Your task to perform on an android device: toggle sleep mode Image 0: 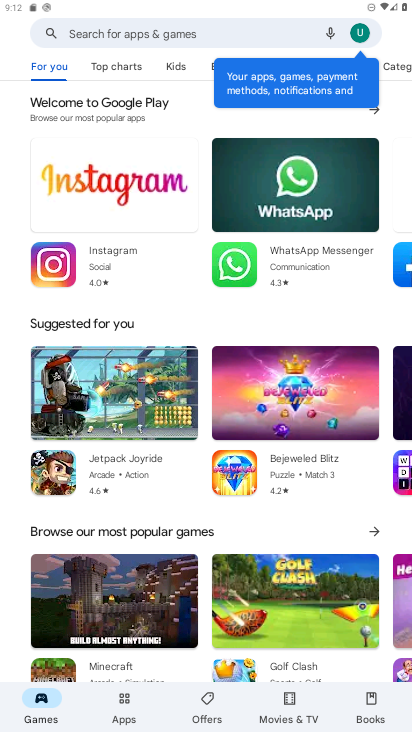
Step 0: press home button
Your task to perform on an android device: toggle sleep mode Image 1: 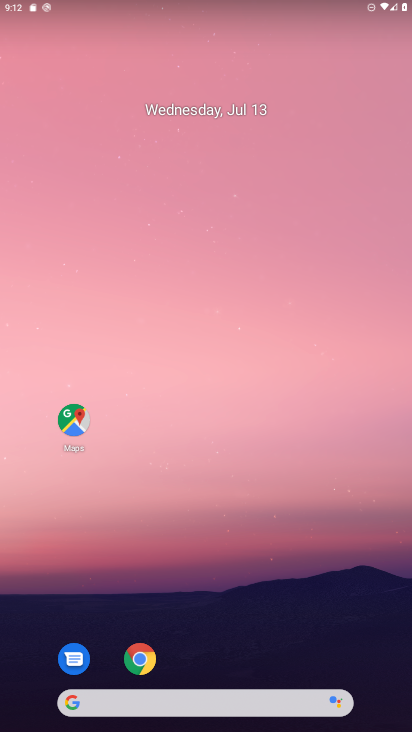
Step 1: drag from (204, 551) to (194, 60)
Your task to perform on an android device: toggle sleep mode Image 2: 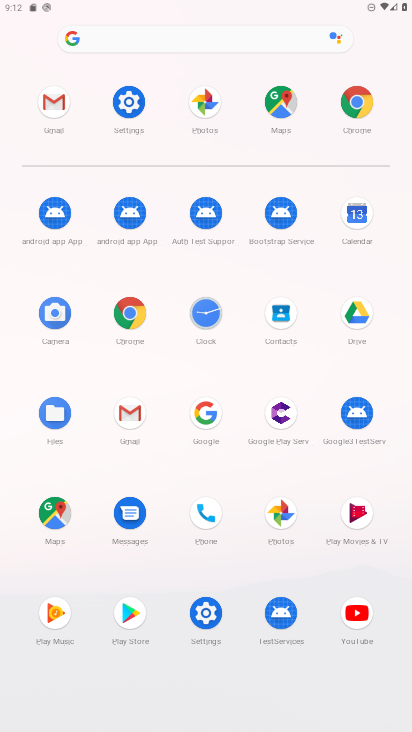
Step 2: click (129, 98)
Your task to perform on an android device: toggle sleep mode Image 3: 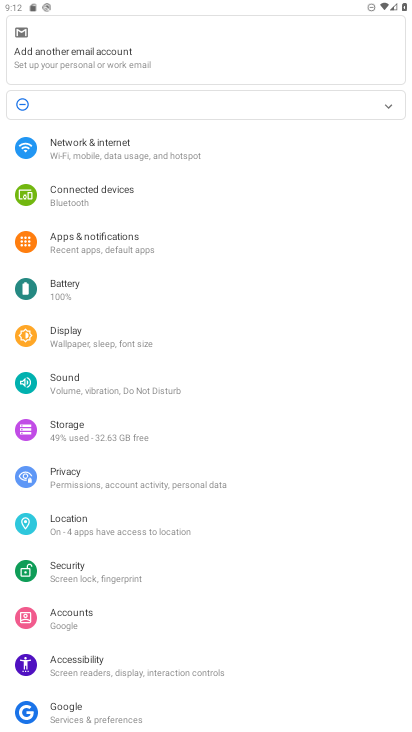
Step 3: click (130, 334)
Your task to perform on an android device: toggle sleep mode Image 4: 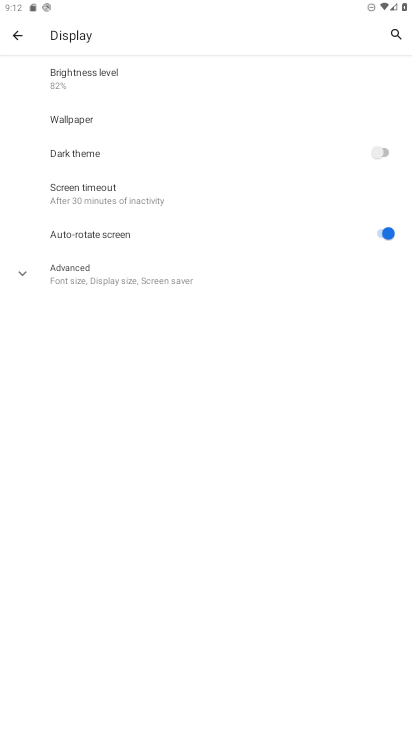
Step 4: click (122, 192)
Your task to perform on an android device: toggle sleep mode Image 5: 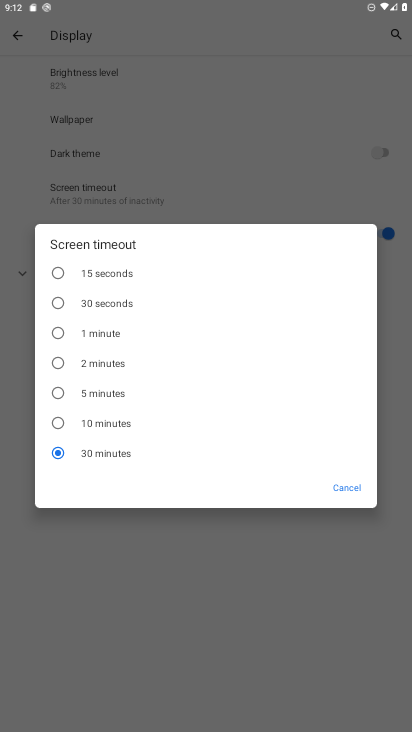
Step 5: click (57, 392)
Your task to perform on an android device: toggle sleep mode Image 6: 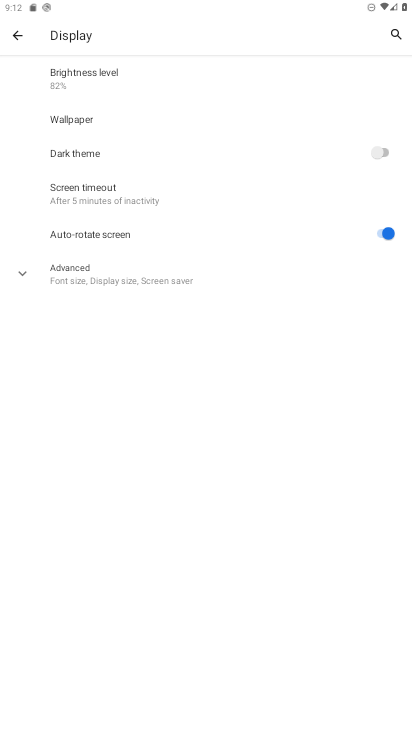
Step 6: task complete